Your task to perform on an android device: Search for Mexican restaurants on Maps Image 0: 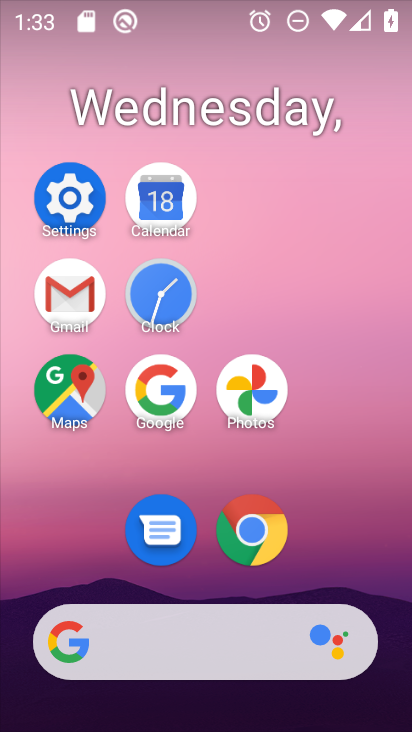
Step 0: click (59, 385)
Your task to perform on an android device: Search for Mexican restaurants on Maps Image 1: 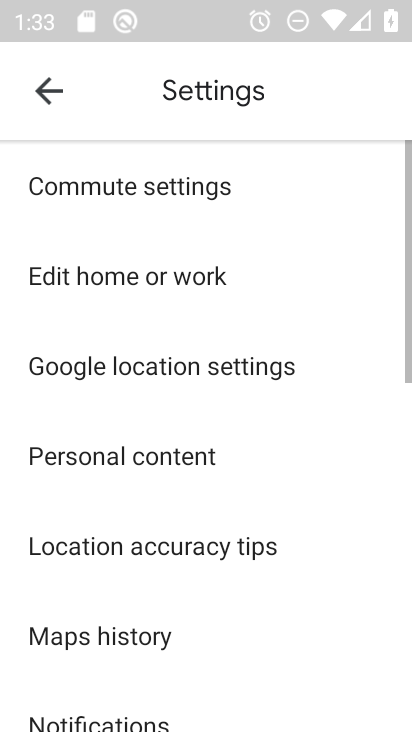
Step 1: click (69, 104)
Your task to perform on an android device: Search for Mexican restaurants on Maps Image 2: 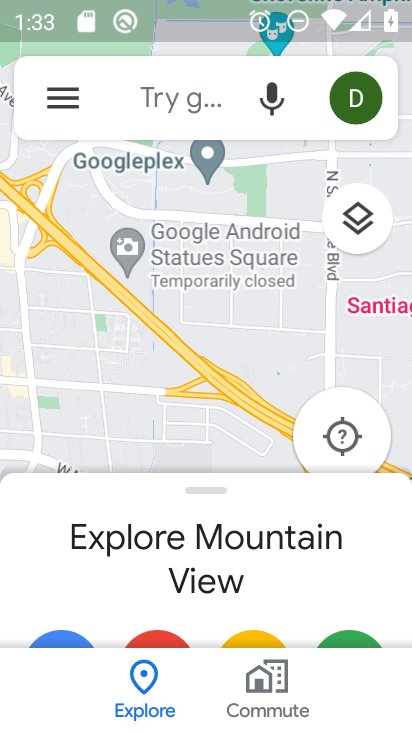
Step 2: click (175, 114)
Your task to perform on an android device: Search for Mexican restaurants on Maps Image 3: 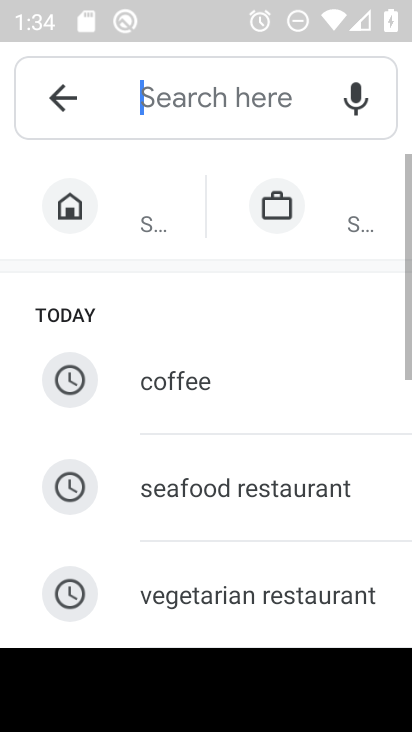
Step 3: drag from (205, 570) to (281, 185)
Your task to perform on an android device: Search for Mexican restaurants on Maps Image 4: 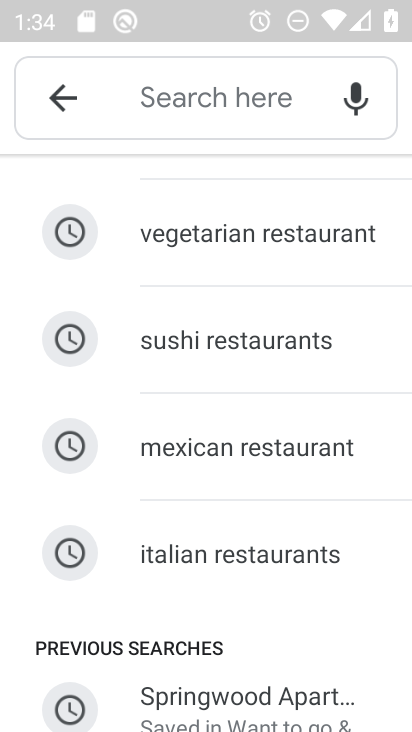
Step 4: click (273, 431)
Your task to perform on an android device: Search for Mexican restaurants on Maps Image 5: 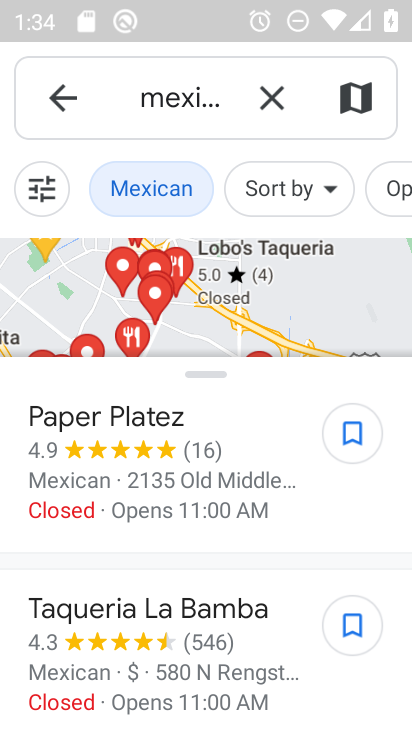
Step 5: task complete